Your task to perform on an android device: How do I get to the nearest Macy's? Image 0: 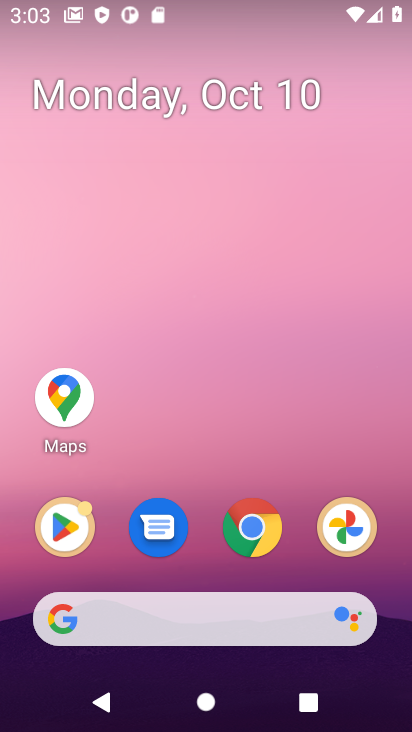
Step 0: press home button
Your task to perform on an android device: How do I get to the nearest Macy's? Image 1: 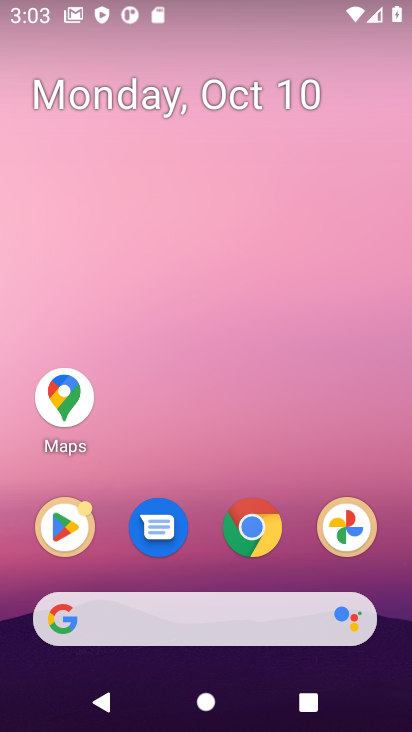
Step 1: click (224, 634)
Your task to perform on an android device: How do I get to the nearest Macy's? Image 2: 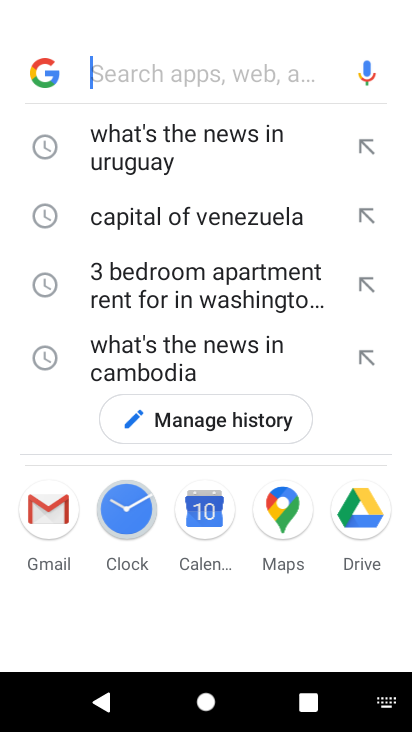
Step 2: type "How do I get to the nearest Macy's"
Your task to perform on an android device: How do I get to the nearest Macy's? Image 3: 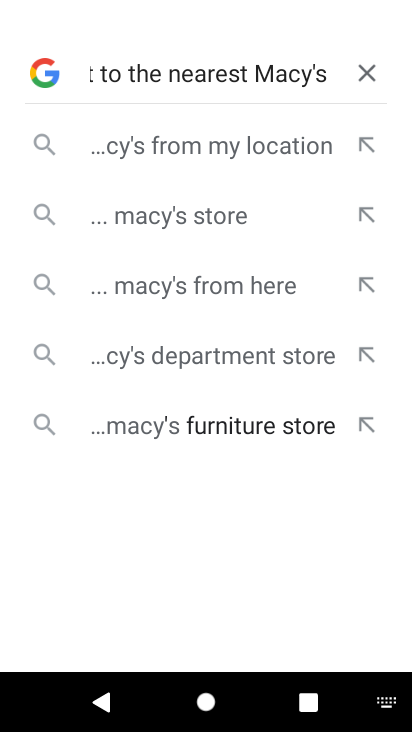
Step 3: press enter
Your task to perform on an android device: How do I get to the nearest Macy's? Image 4: 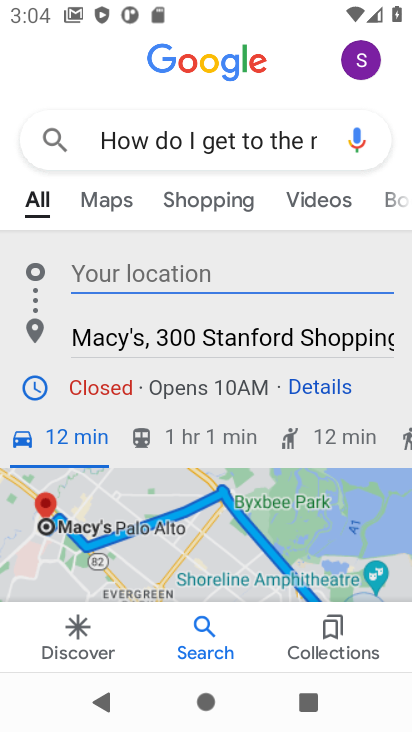
Step 4: task complete